Your task to perform on an android device: install app "DoorDash - Dasher" Image 0: 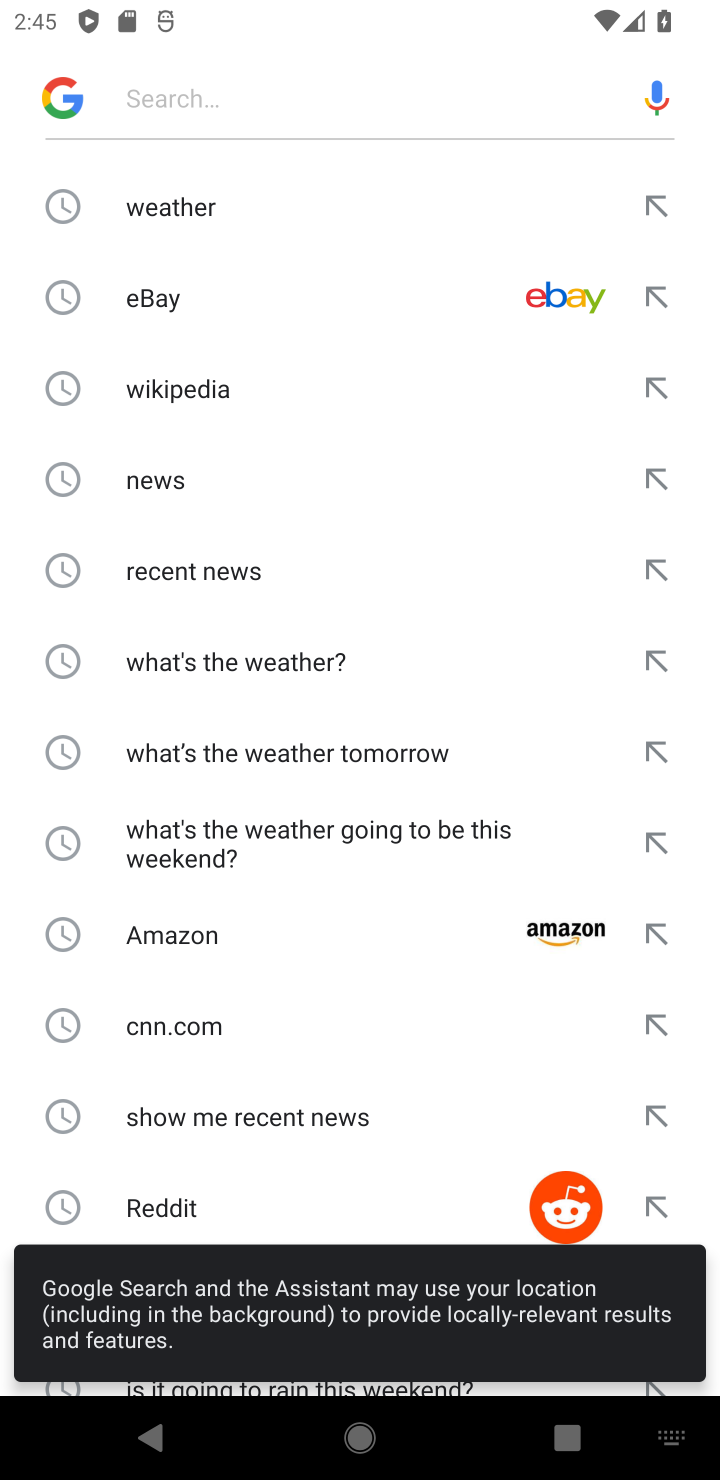
Step 0: press home button
Your task to perform on an android device: install app "DoorDash - Dasher" Image 1: 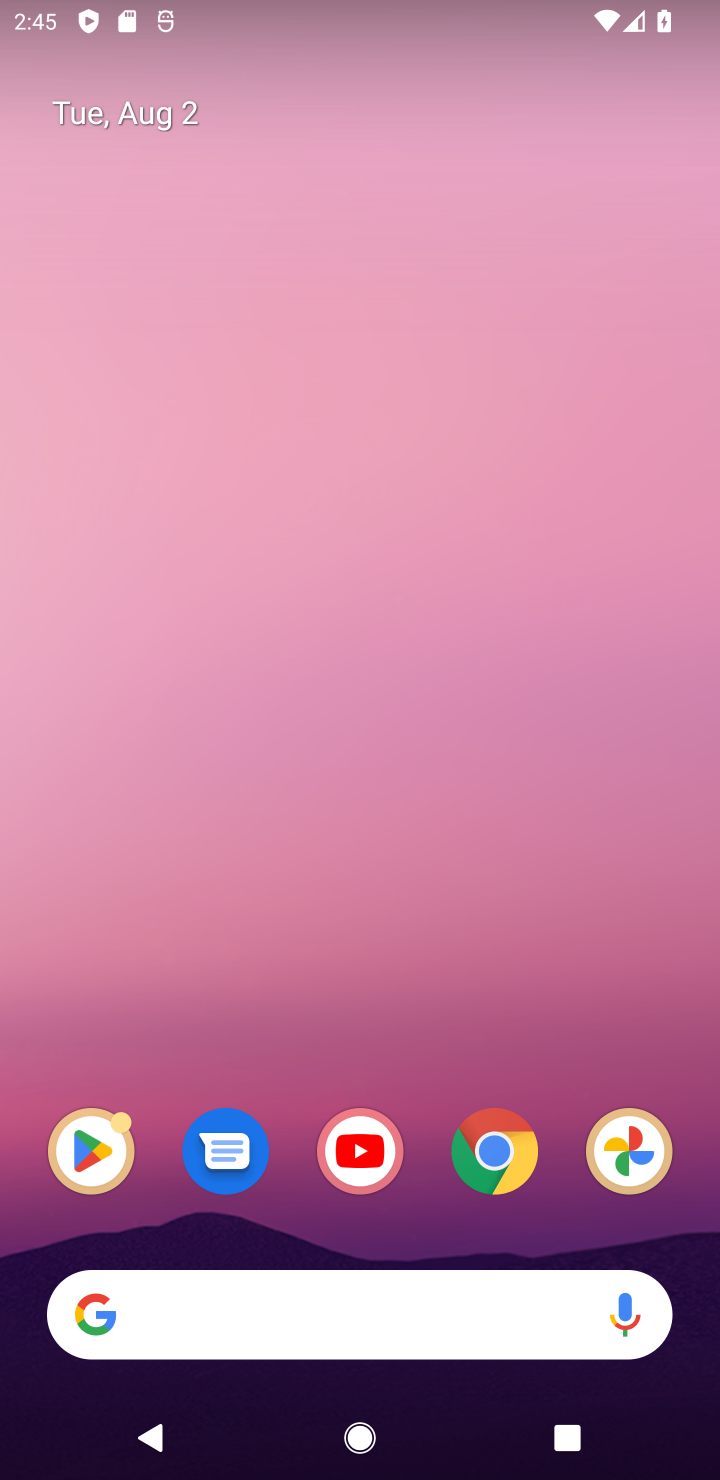
Step 1: drag from (348, 1034) to (461, 3)
Your task to perform on an android device: install app "DoorDash - Dasher" Image 2: 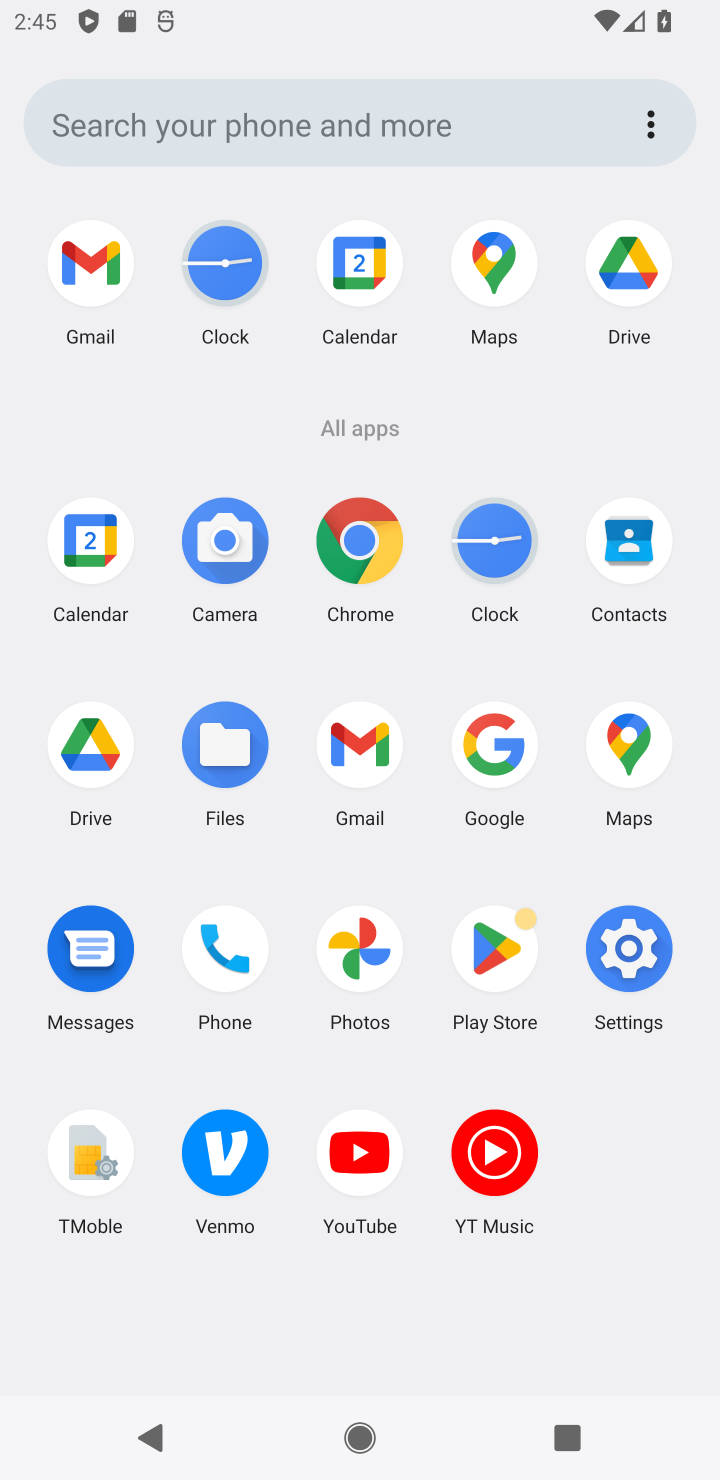
Step 2: click (469, 947)
Your task to perform on an android device: install app "DoorDash - Dasher" Image 3: 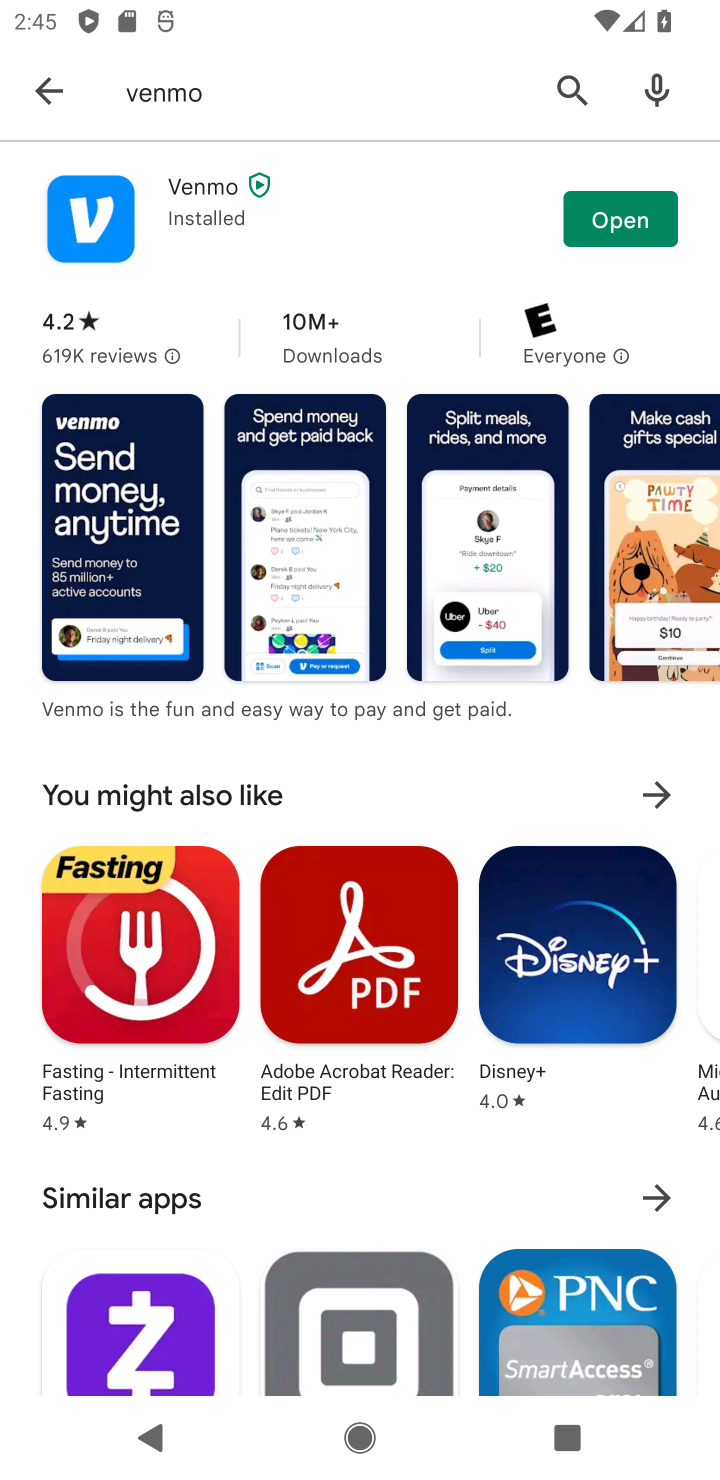
Step 3: click (55, 81)
Your task to perform on an android device: install app "DoorDash - Dasher" Image 4: 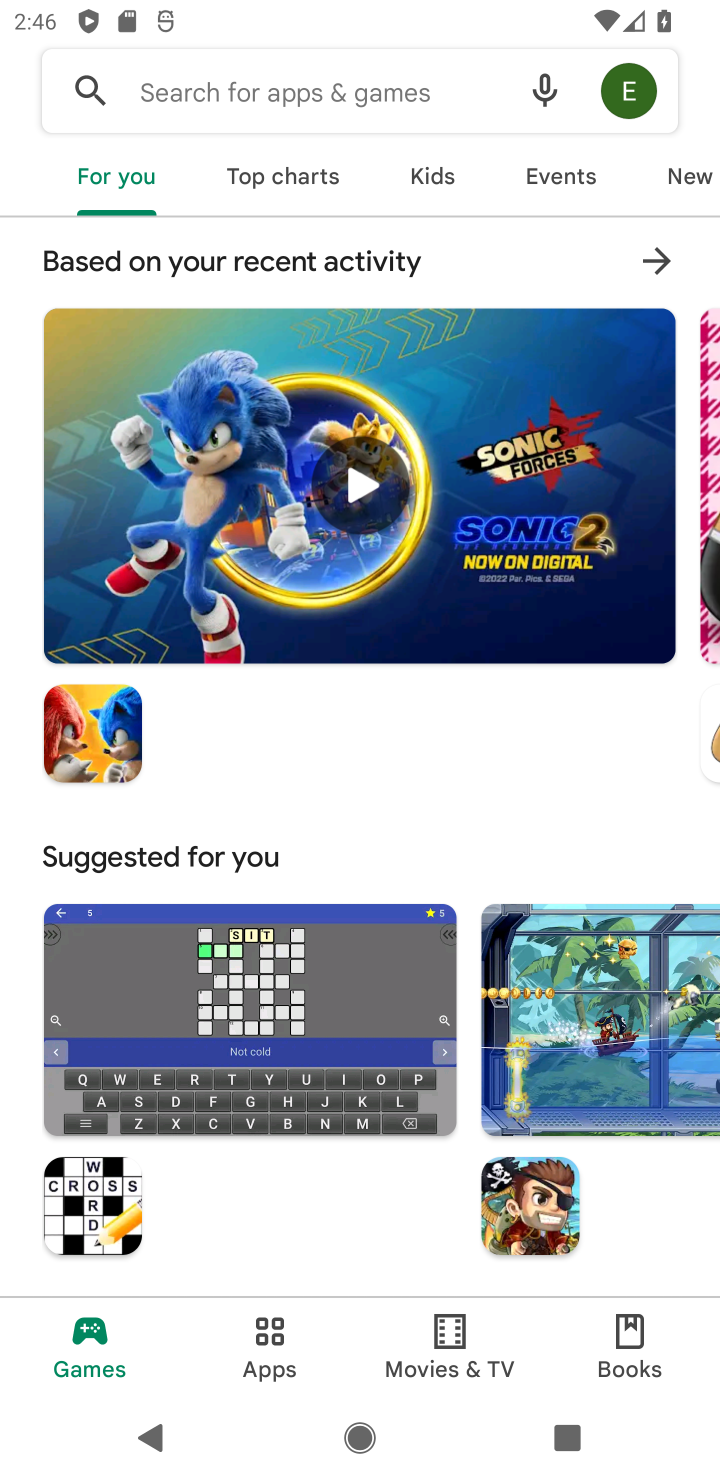
Step 4: click (254, 79)
Your task to perform on an android device: install app "DoorDash - Dasher" Image 5: 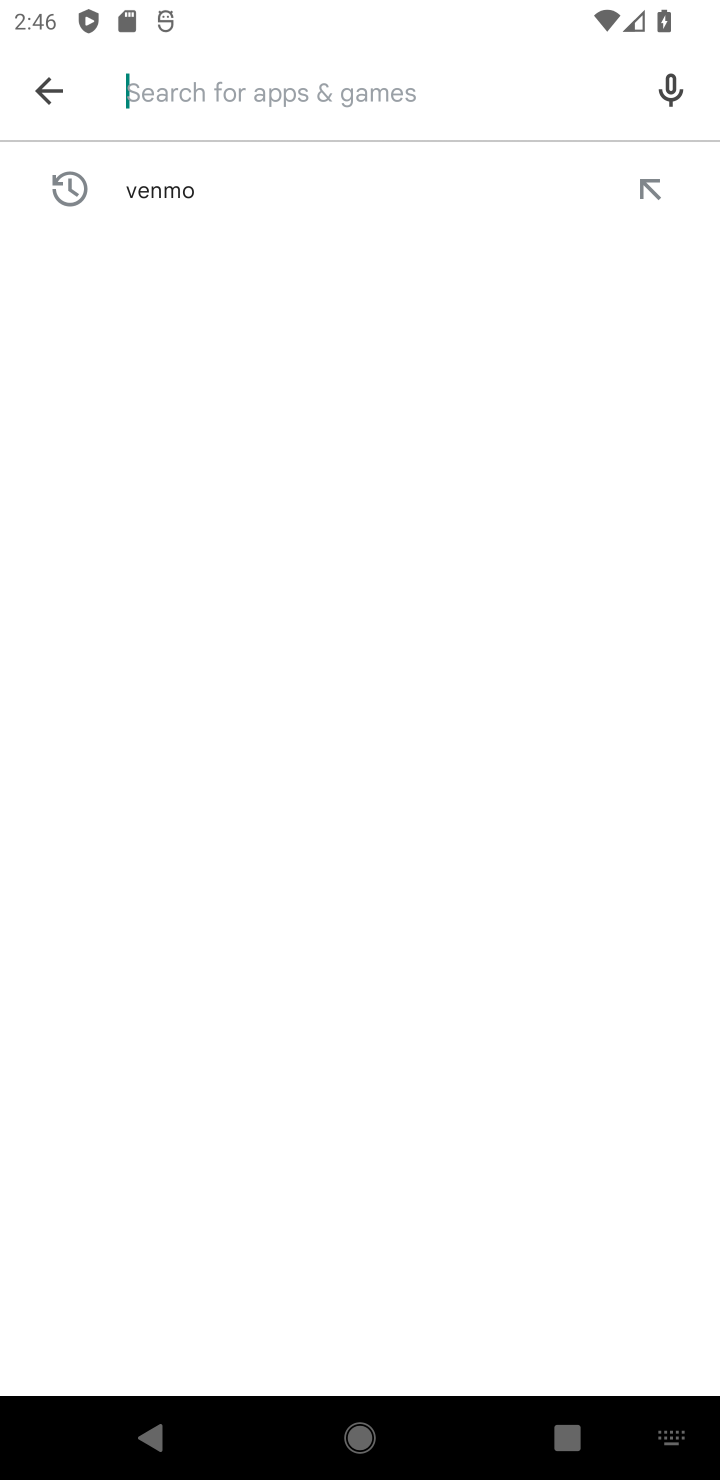
Step 5: type "DoorDash - Dasher"
Your task to perform on an android device: install app "DoorDash - Dasher" Image 6: 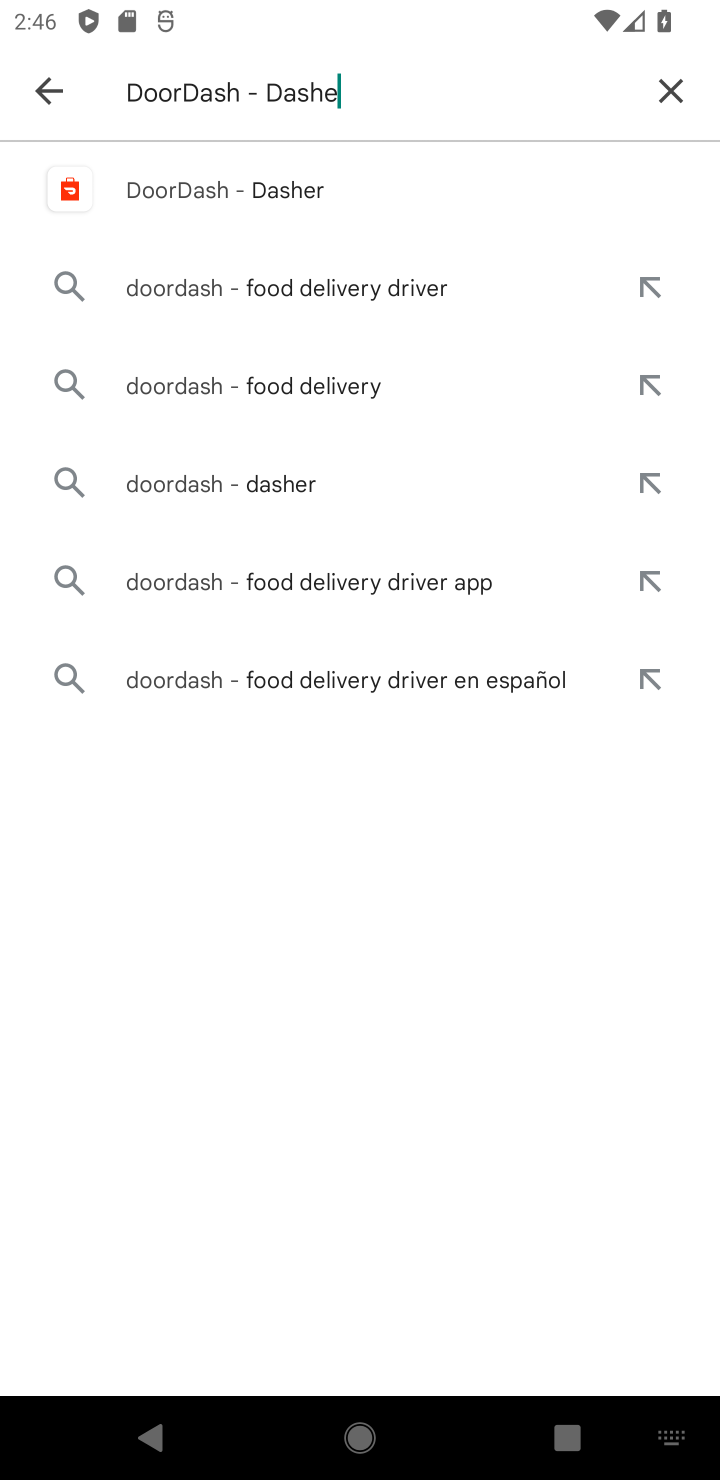
Step 6: type ""
Your task to perform on an android device: install app "DoorDash - Dasher" Image 7: 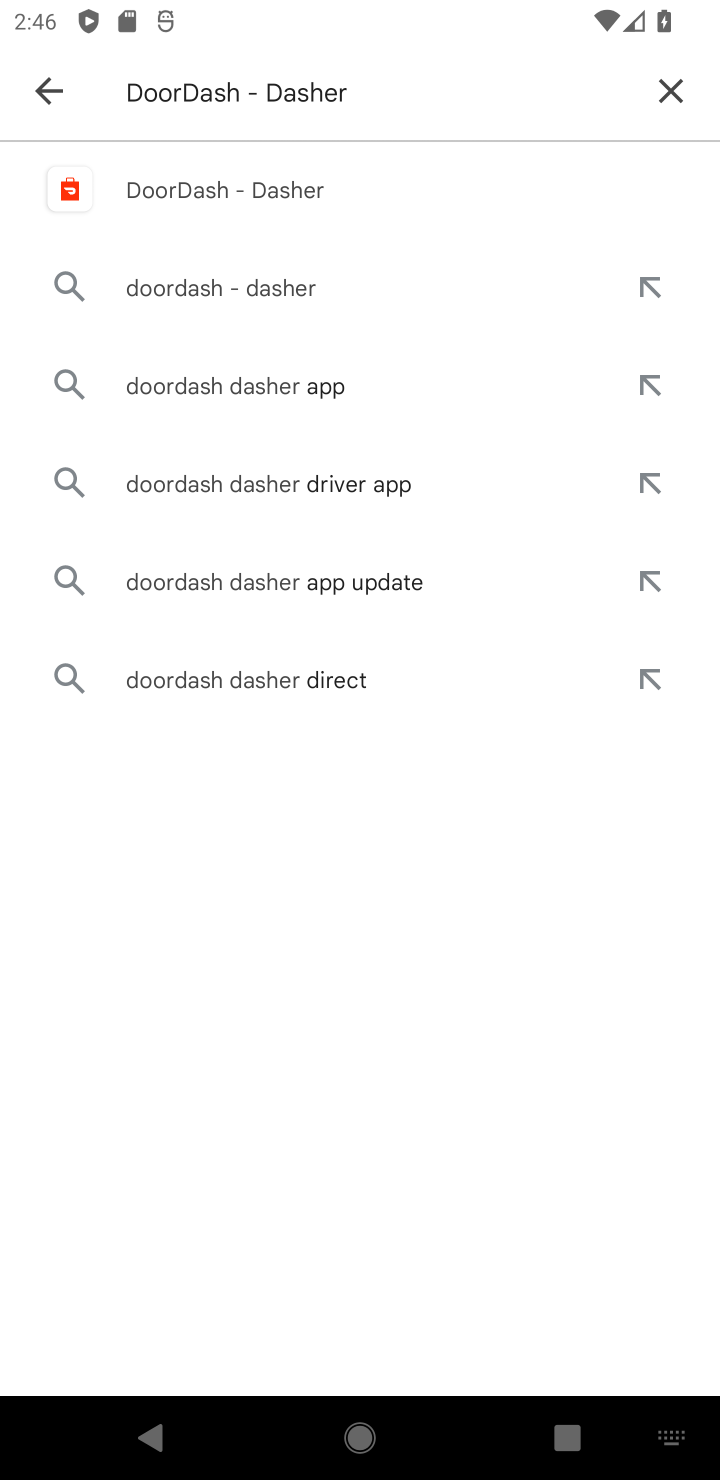
Step 7: click (307, 193)
Your task to perform on an android device: install app "DoorDash - Dasher" Image 8: 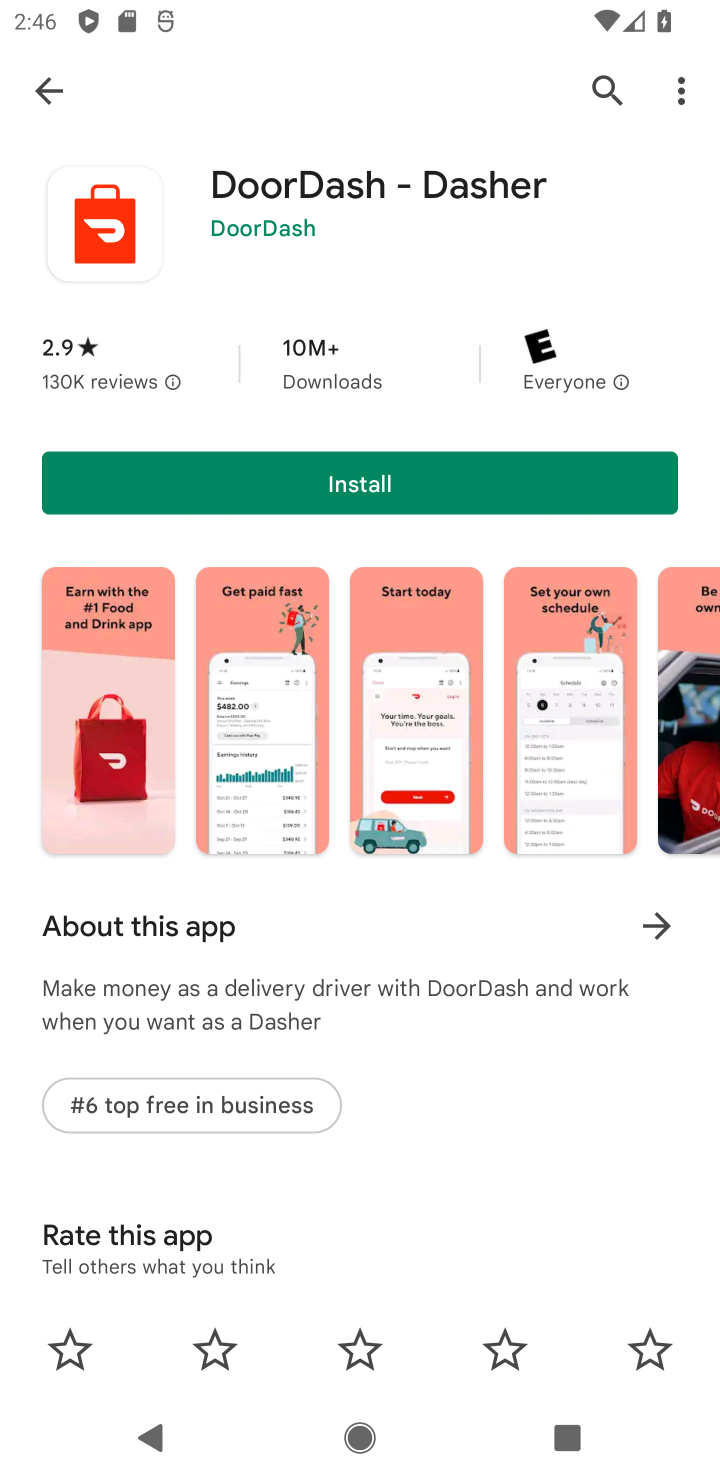
Step 8: click (433, 492)
Your task to perform on an android device: install app "DoorDash - Dasher" Image 9: 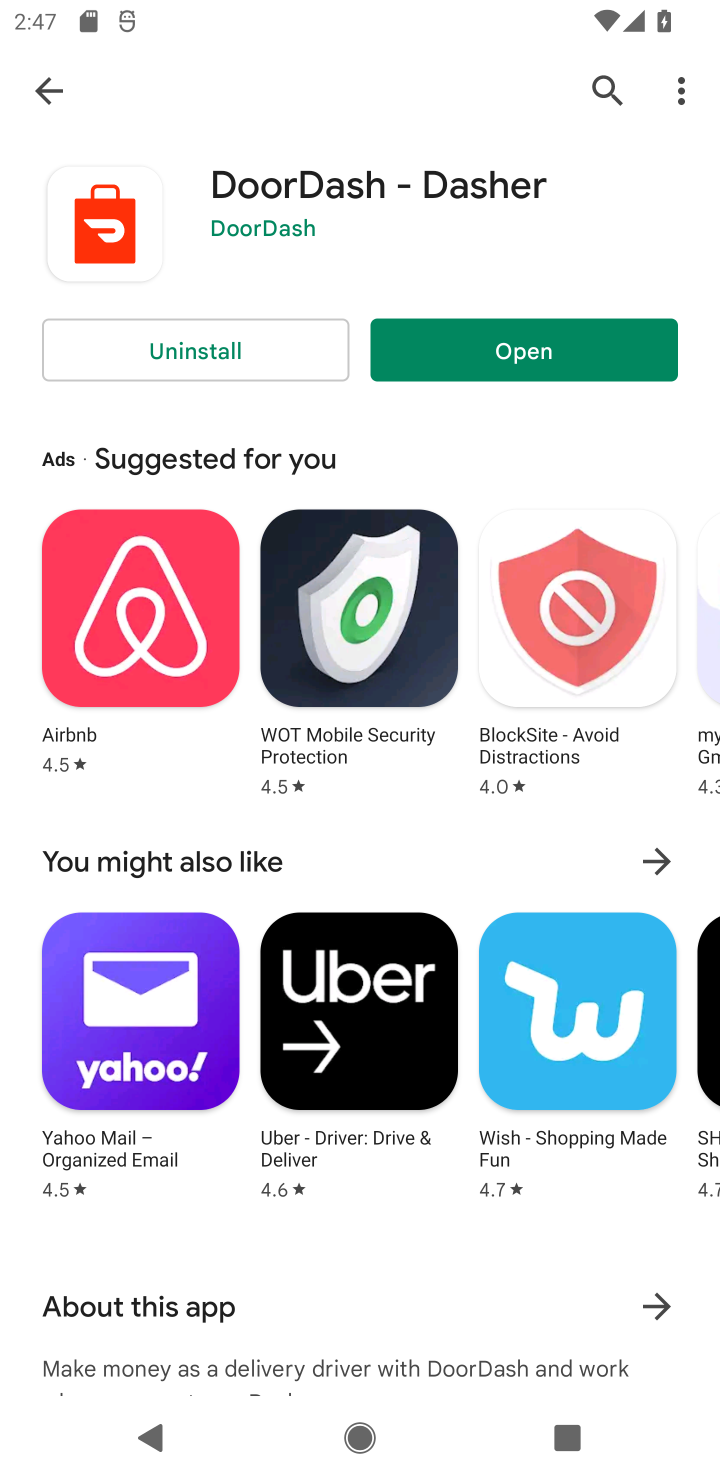
Step 9: task complete